Your task to perform on an android device: Open Yahoo.com Image 0: 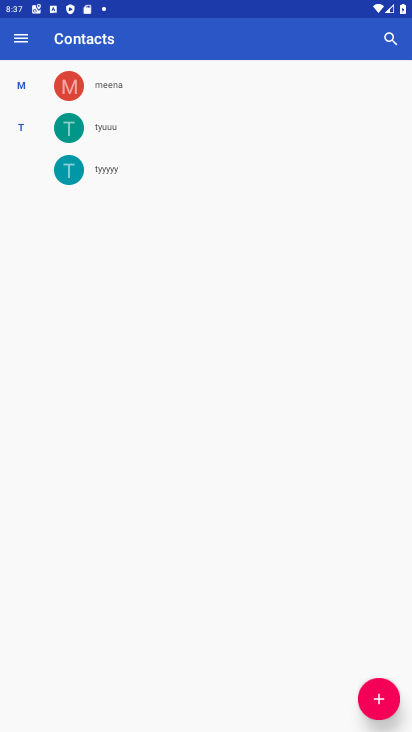
Step 0: press home button
Your task to perform on an android device: Open Yahoo.com Image 1: 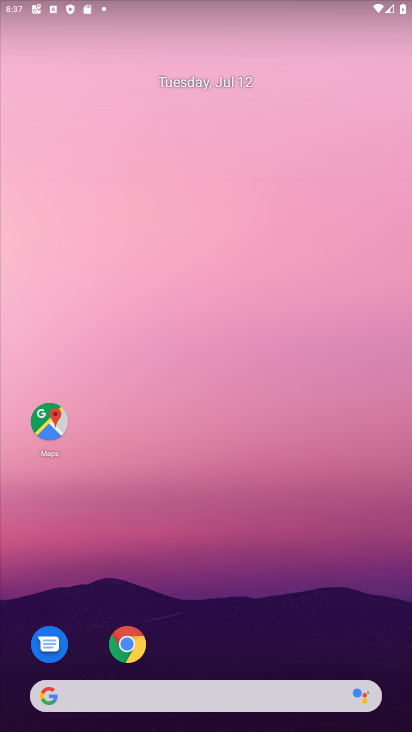
Step 1: click (127, 646)
Your task to perform on an android device: Open Yahoo.com Image 2: 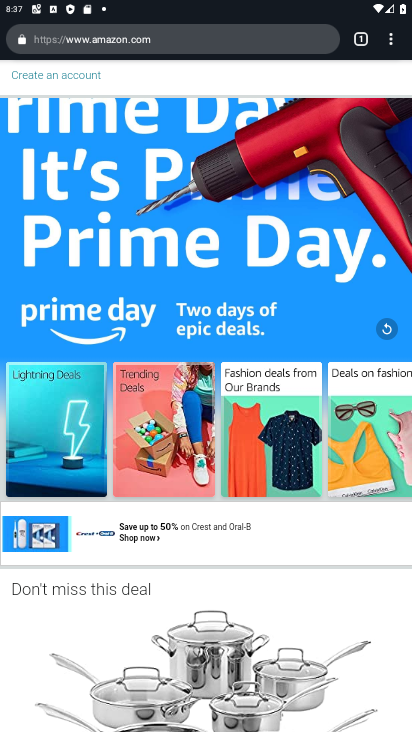
Step 2: click (201, 34)
Your task to perform on an android device: Open Yahoo.com Image 3: 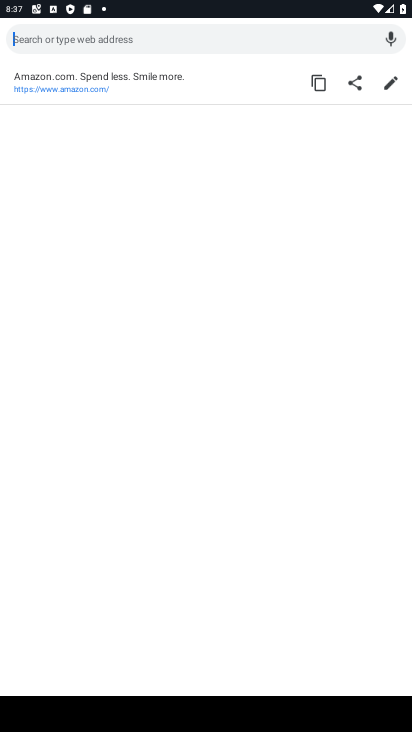
Step 3: type "yahoo.com"
Your task to perform on an android device: Open Yahoo.com Image 4: 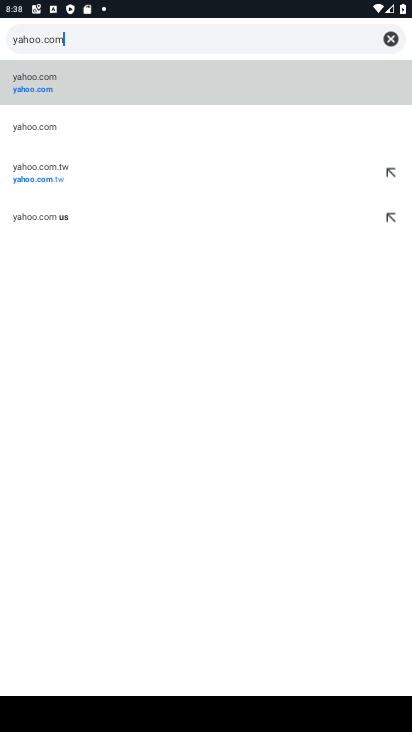
Step 4: click (45, 79)
Your task to perform on an android device: Open Yahoo.com Image 5: 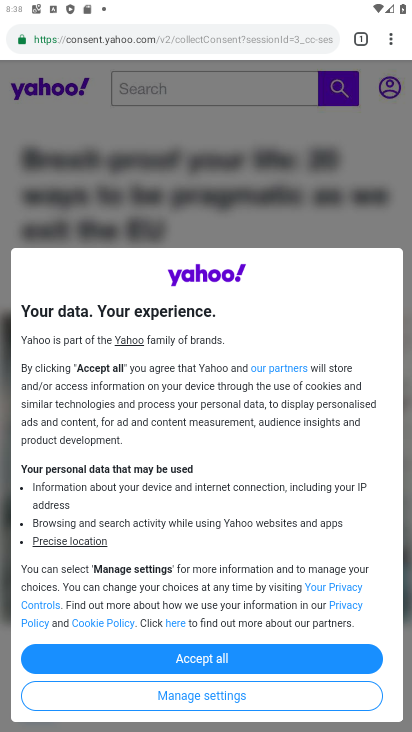
Step 5: click (201, 660)
Your task to perform on an android device: Open Yahoo.com Image 6: 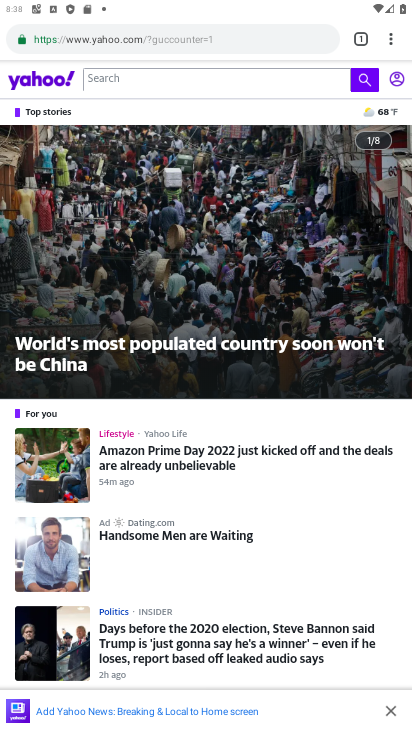
Step 6: task complete